Your task to perform on an android device: Go to Wikipedia Image 0: 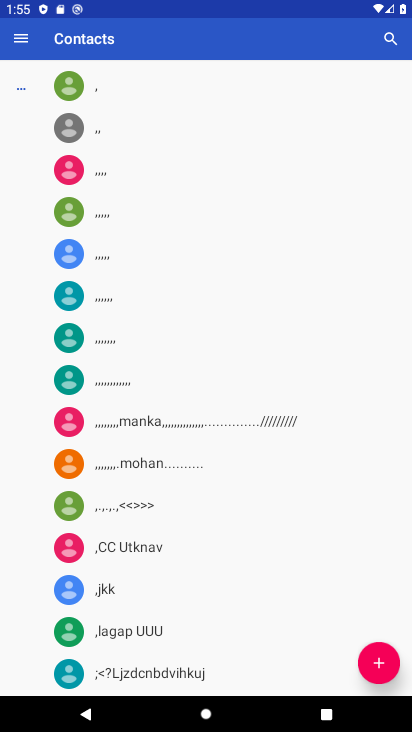
Step 0: press home button
Your task to perform on an android device: Go to Wikipedia Image 1: 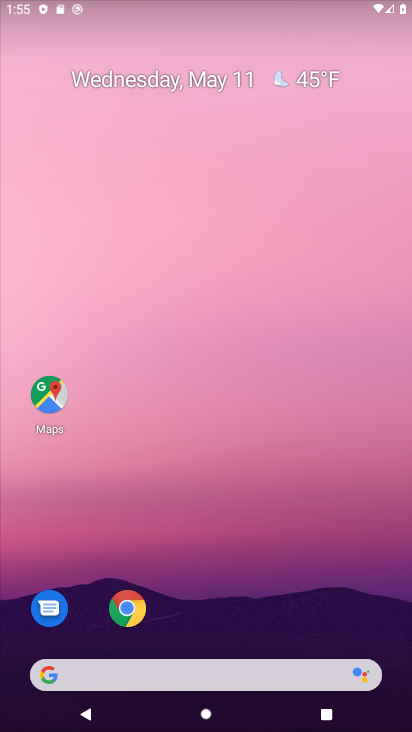
Step 1: drag from (202, 590) to (236, 145)
Your task to perform on an android device: Go to Wikipedia Image 2: 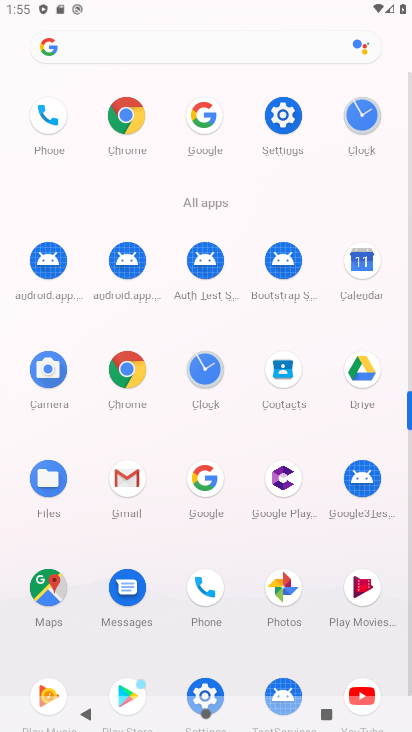
Step 2: click (129, 374)
Your task to perform on an android device: Go to Wikipedia Image 3: 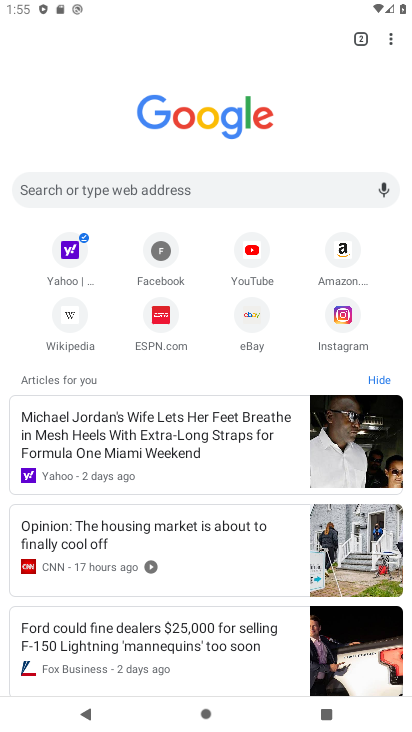
Step 3: click (57, 327)
Your task to perform on an android device: Go to Wikipedia Image 4: 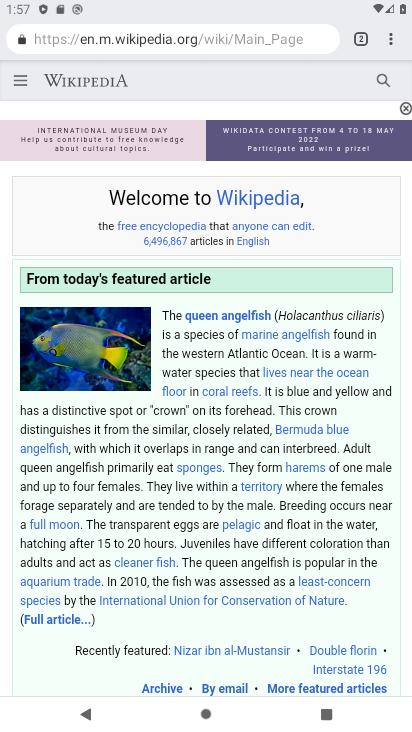
Step 4: task complete